Your task to perform on an android device: Search for the new ikea dresser Image 0: 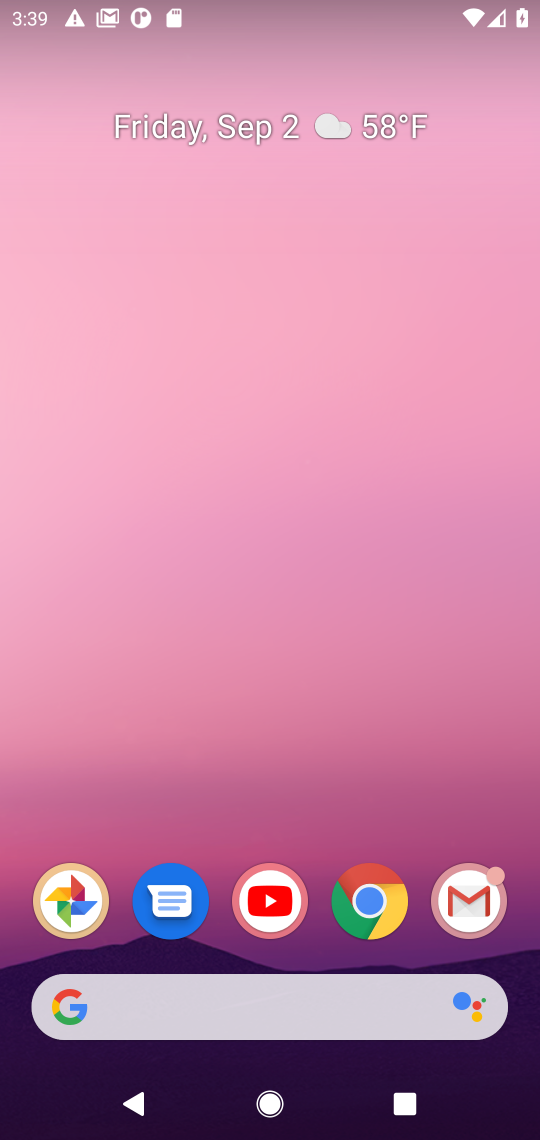
Step 0: drag from (251, 800) to (357, 132)
Your task to perform on an android device: Search for the new ikea dresser Image 1: 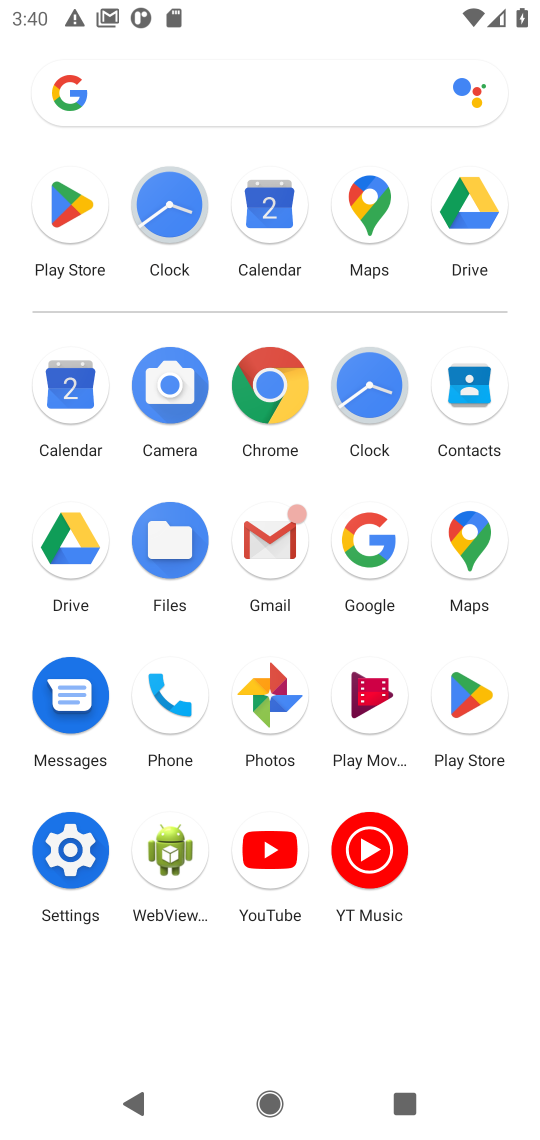
Step 1: click (275, 390)
Your task to perform on an android device: Search for the new ikea dresser Image 2: 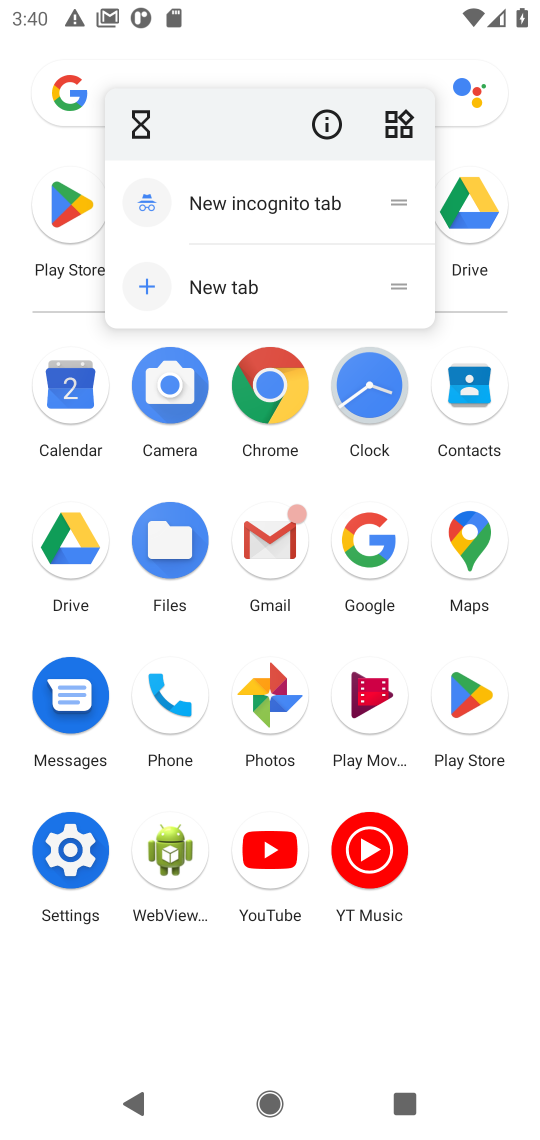
Step 2: click (277, 384)
Your task to perform on an android device: Search for the new ikea dresser Image 3: 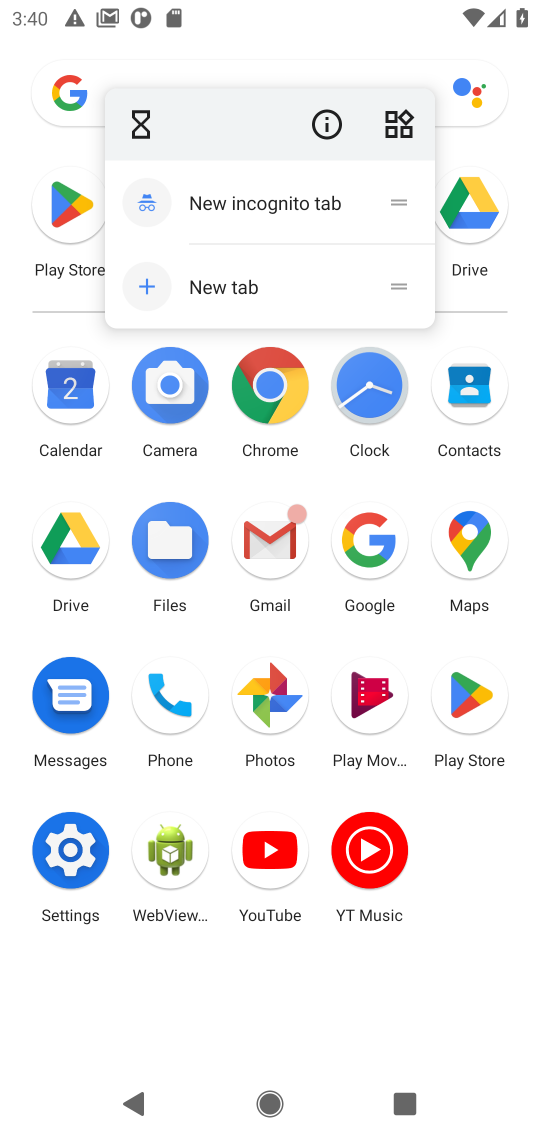
Step 3: click (274, 384)
Your task to perform on an android device: Search for the new ikea dresser Image 4: 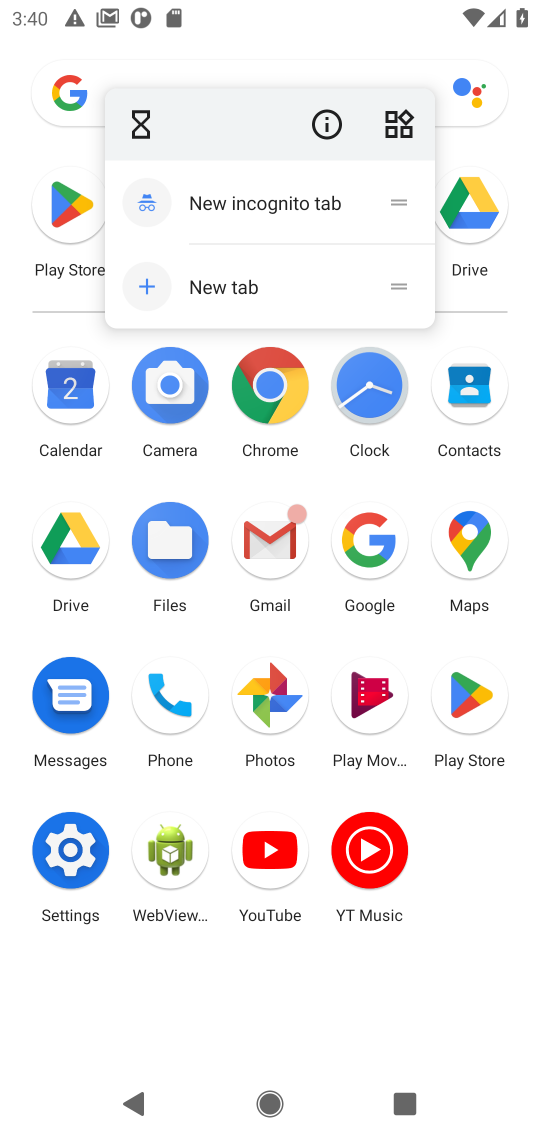
Step 4: click (271, 381)
Your task to perform on an android device: Search for the new ikea dresser Image 5: 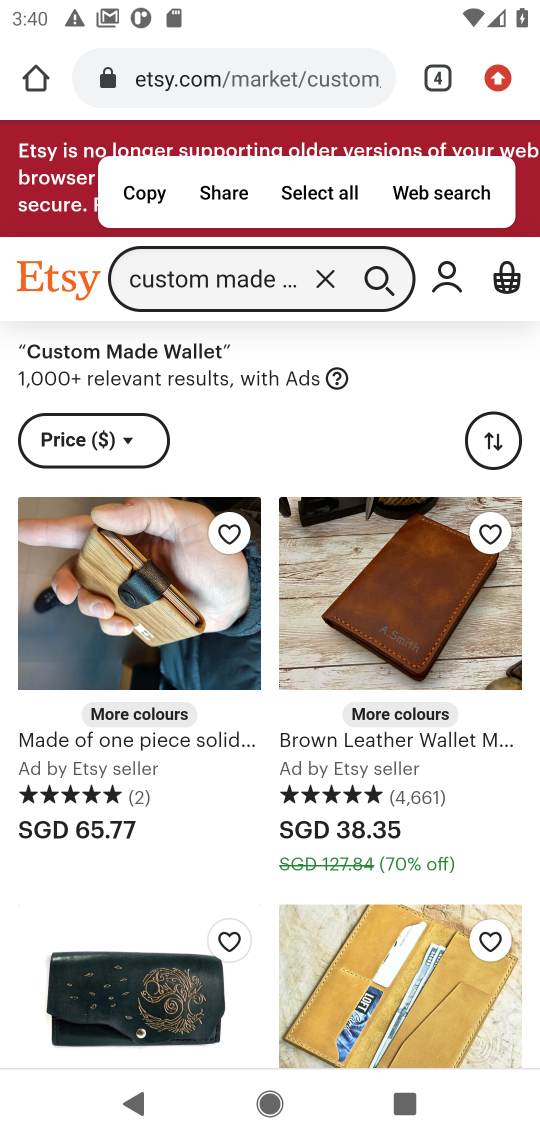
Step 5: click (252, 81)
Your task to perform on an android device: Search for the new ikea dresser Image 6: 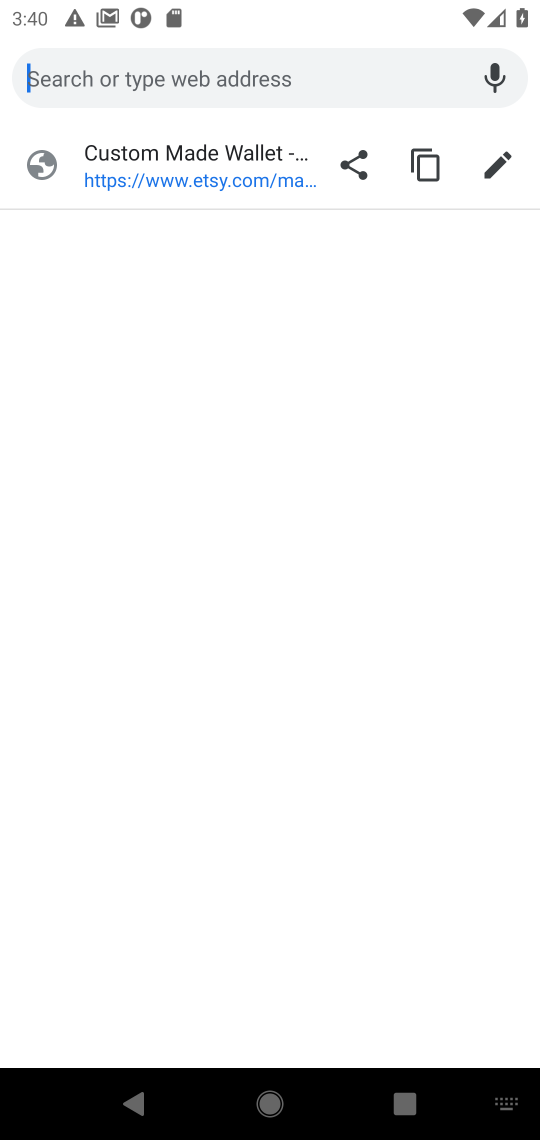
Step 6: type "new ikea dresser"
Your task to perform on an android device: Search for the new ikea dresser Image 7: 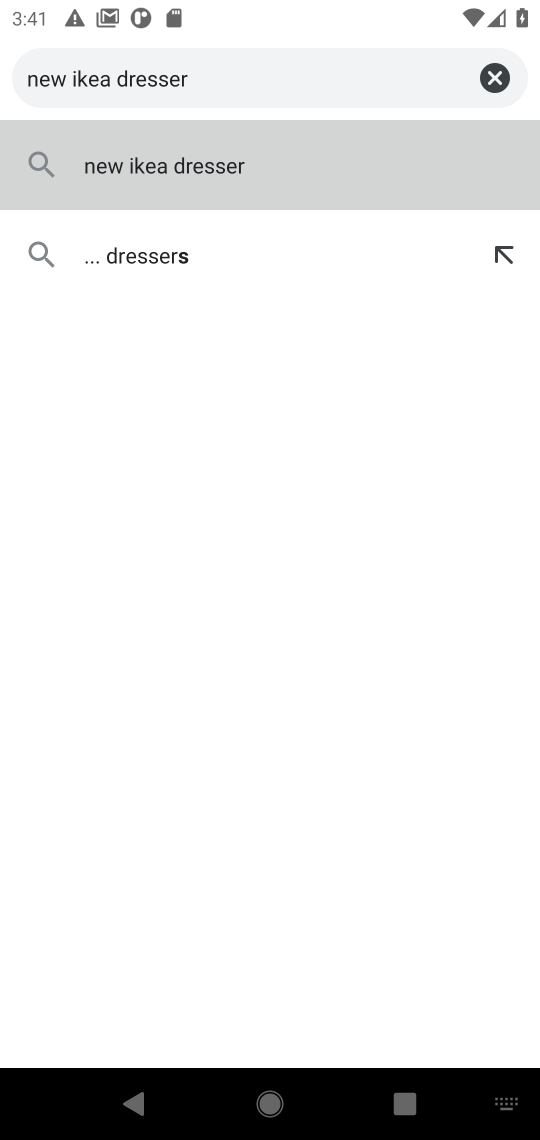
Step 7: press enter
Your task to perform on an android device: Search for the new ikea dresser Image 8: 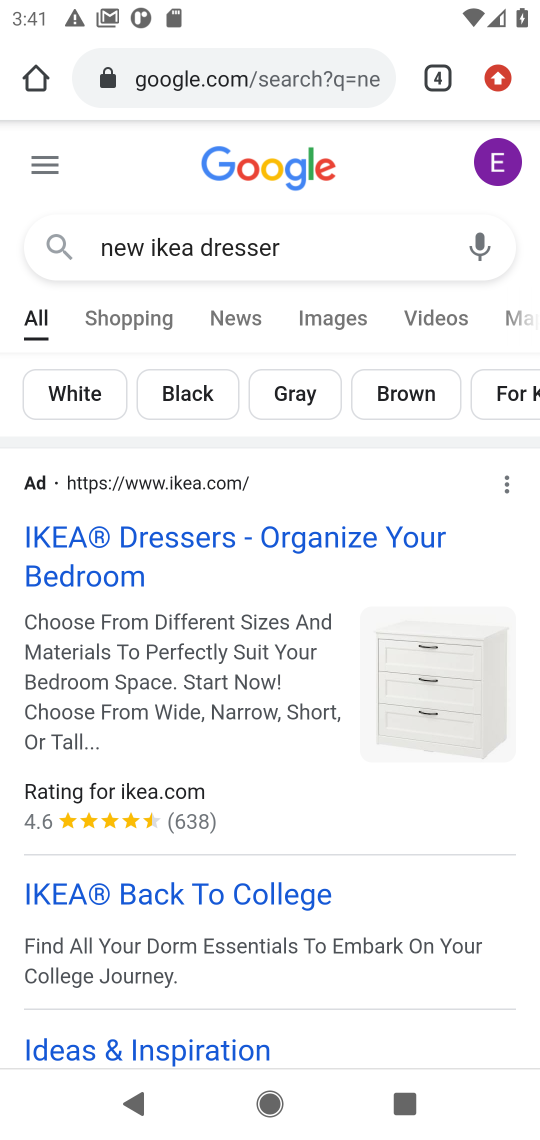
Step 8: drag from (263, 303) to (357, 0)
Your task to perform on an android device: Search for the new ikea dresser Image 9: 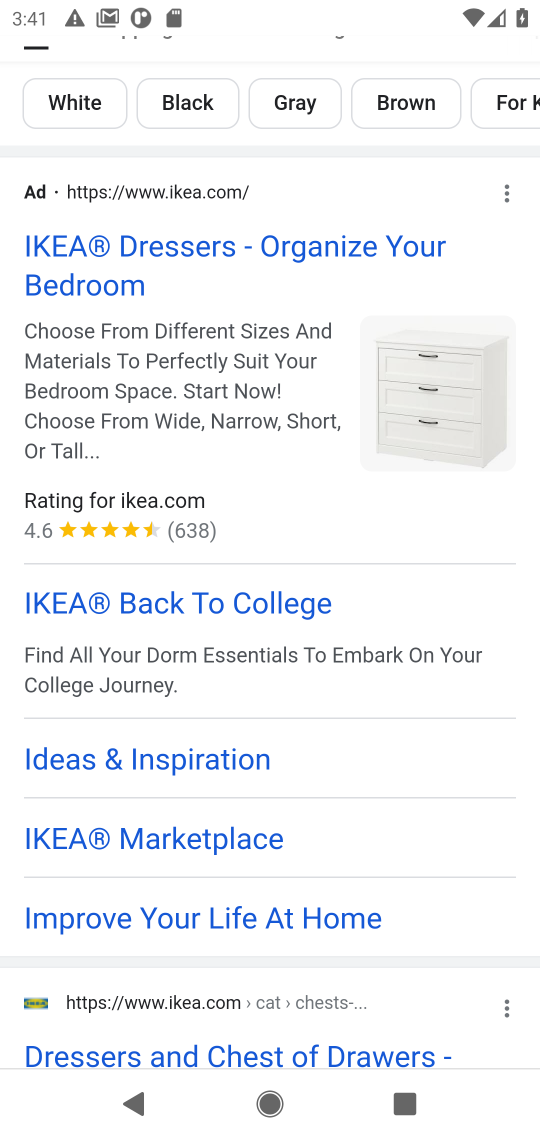
Step 9: click (238, 1058)
Your task to perform on an android device: Search for the new ikea dresser Image 10: 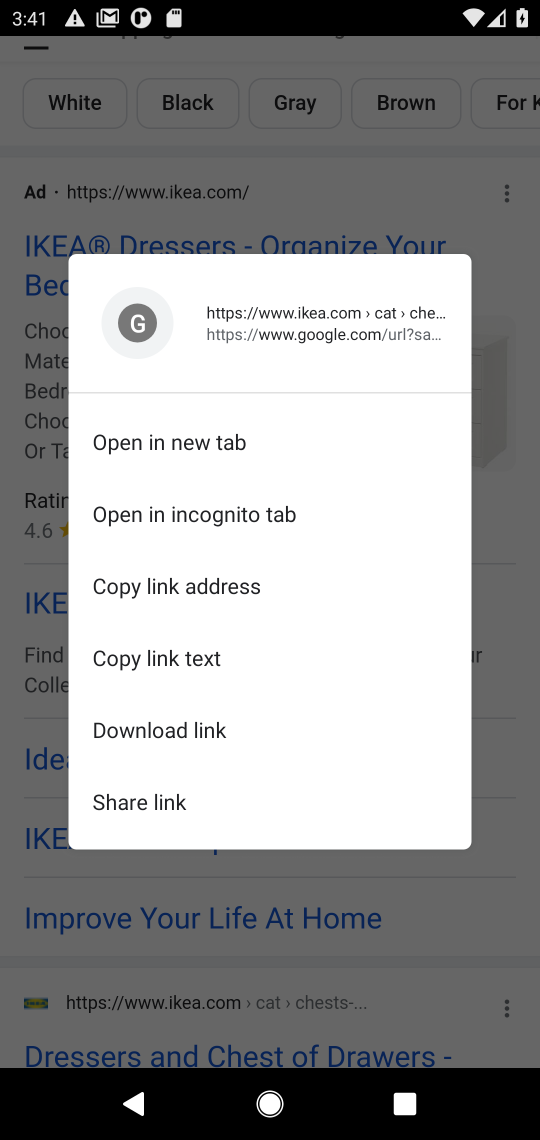
Step 10: click (325, 961)
Your task to perform on an android device: Search for the new ikea dresser Image 11: 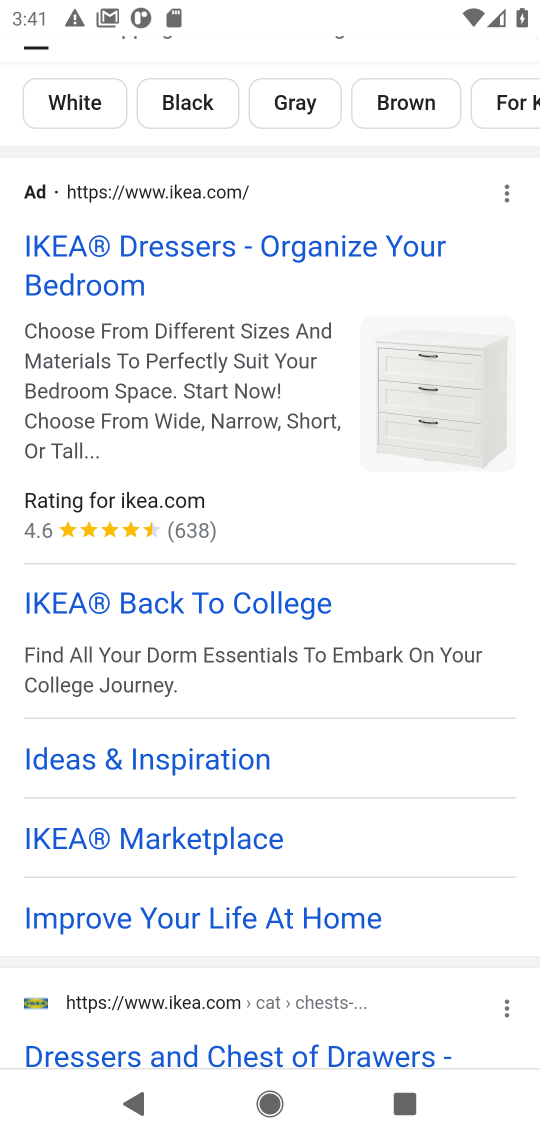
Step 11: click (271, 1053)
Your task to perform on an android device: Search for the new ikea dresser Image 12: 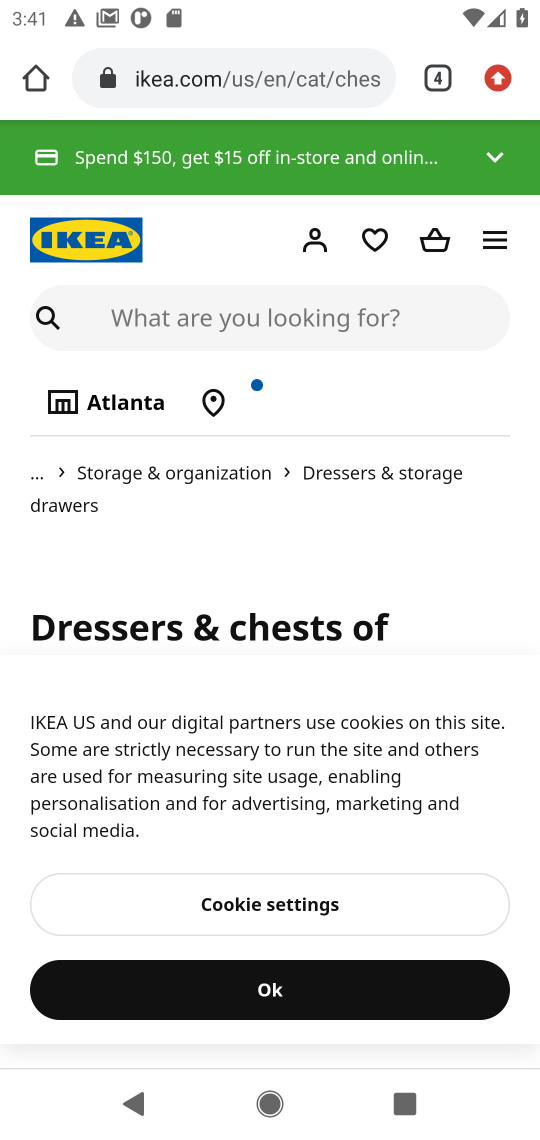
Step 12: task complete